Your task to perform on an android device: change timer sound Image 0: 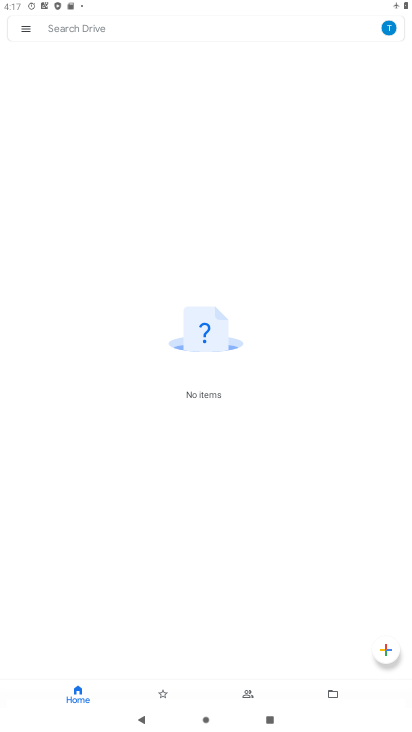
Step 0: press home button
Your task to perform on an android device: change timer sound Image 1: 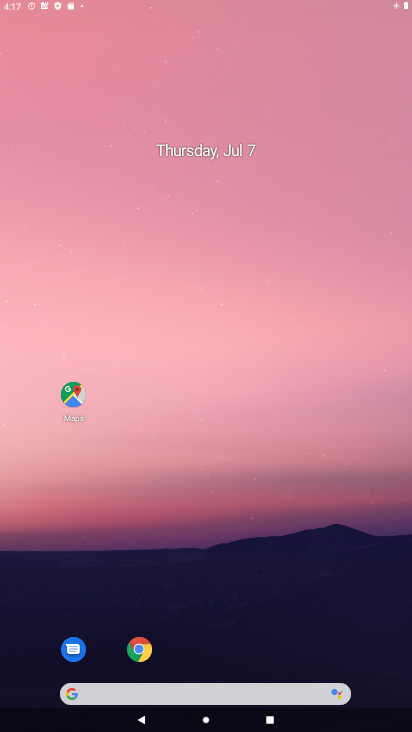
Step 1: drag from (396, 681) to (219, 109)
Your task to perform on an android device: change timer sound Image 2: 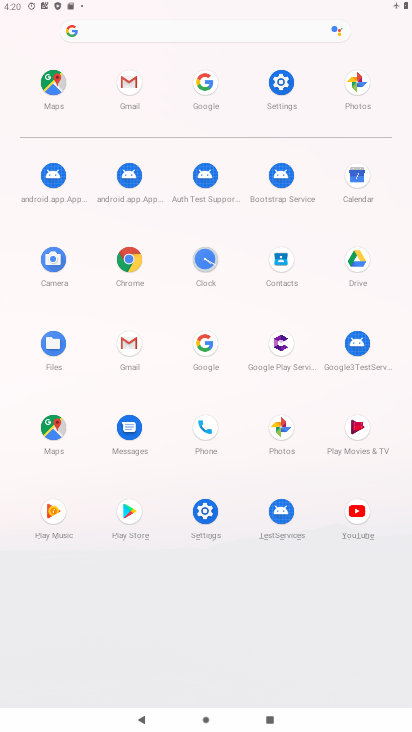
Step 2: click (207, 272)
Your task to perform on an android device: change timer sound Image 3: 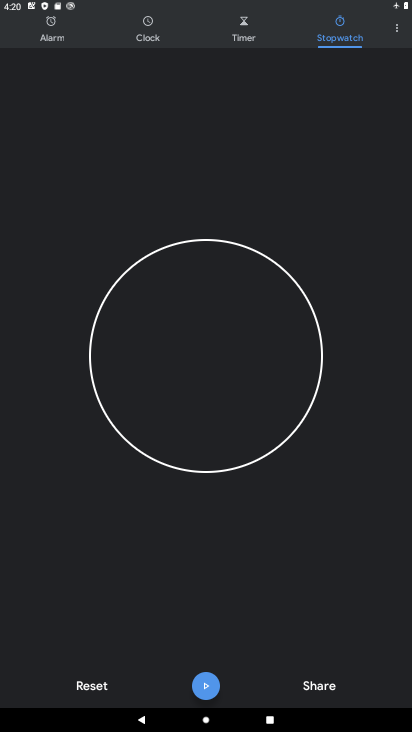
Step 3: click (390, 26)
Your task to perform on an android device: change timer sound Image 4: 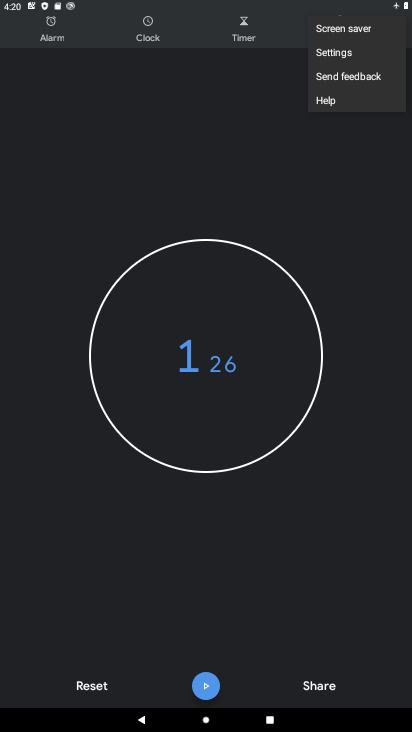
Step 4: click (354, 49)
Your task to perform on an android device: change timer sound Image 5: 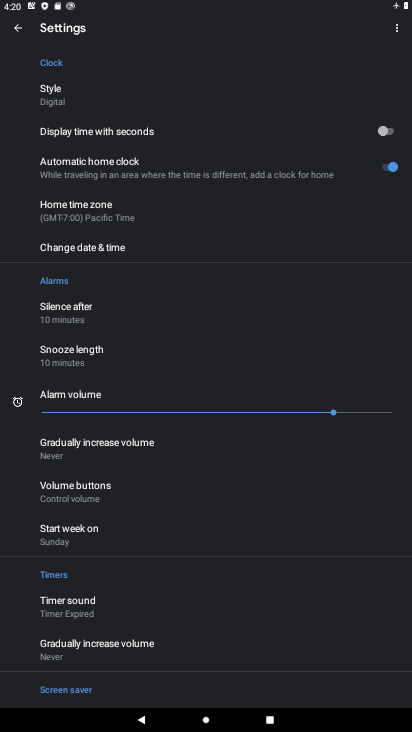
Step 5: click (103, 617)
Your task to perform on an android device: change timer sound Image 6: 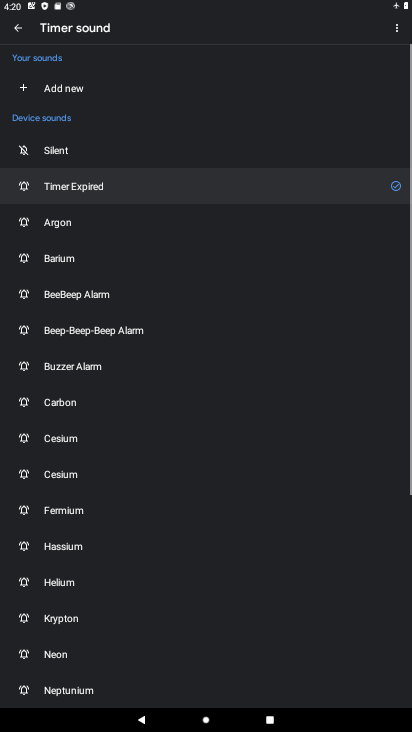
Step 6: click (68, 413)
Your task to perform on an android device: change timer sound Image 7: 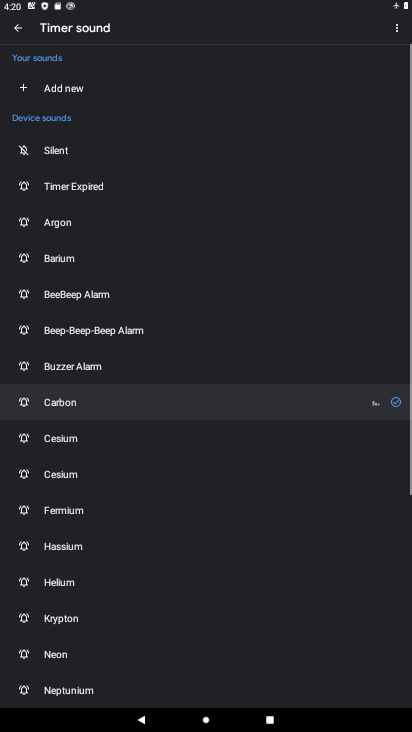
Step 7: task complete